Your task to perform on an android device: allow cookies in the chrome app Image 0: 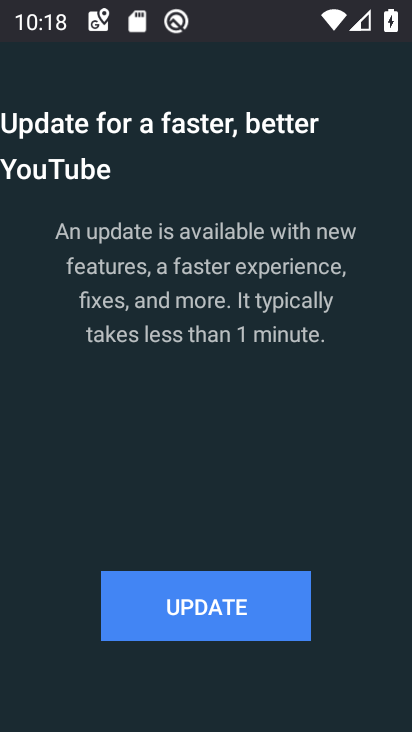
Step 0: press home button
Your task to perform on an android device: allow cookies in the chrome app Image 1: 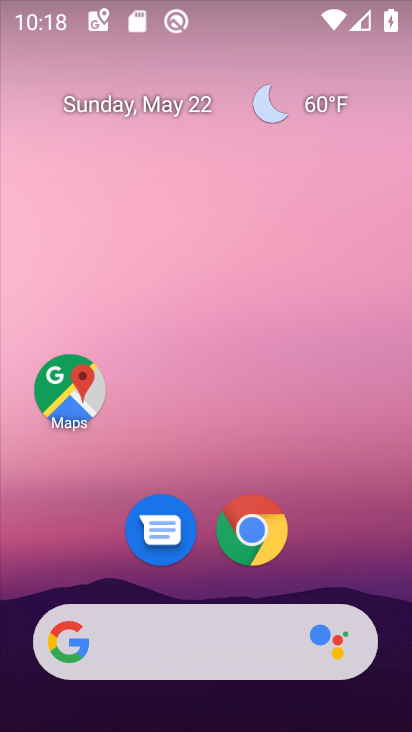
Step 1: click (261, 528)
Your task to perform on an android device: allow cookies in the chrome app Image 2: 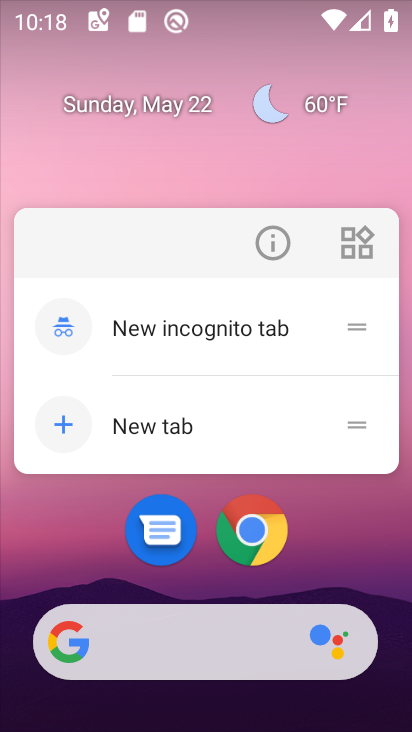
Step 2: click (246, 516)
Your task to perform on an android device: allow cookies in the chrome app Image 3: 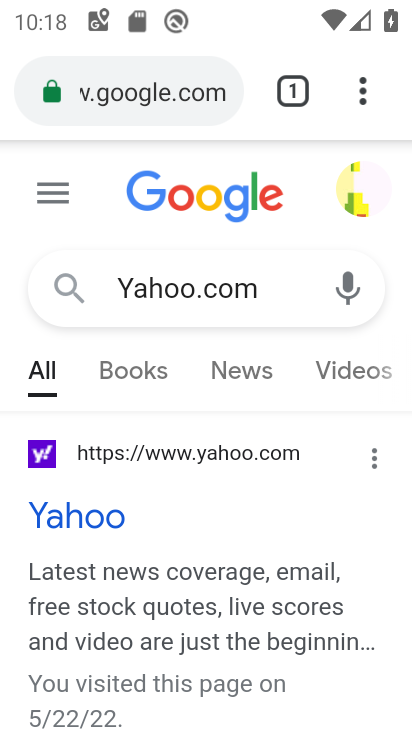
Step 3: click (358, 80)
Your task to perform on an android device: allow cookies in the chrome app Image 4: 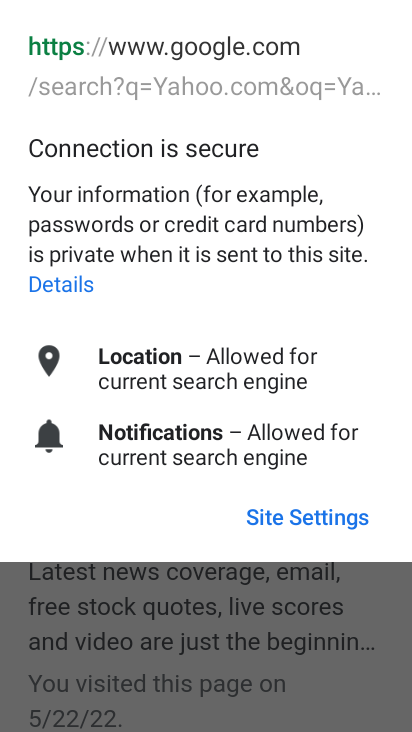
Step 4: press back button
Your task to perform on an android device: allow cookies in the chrome app Image 5: 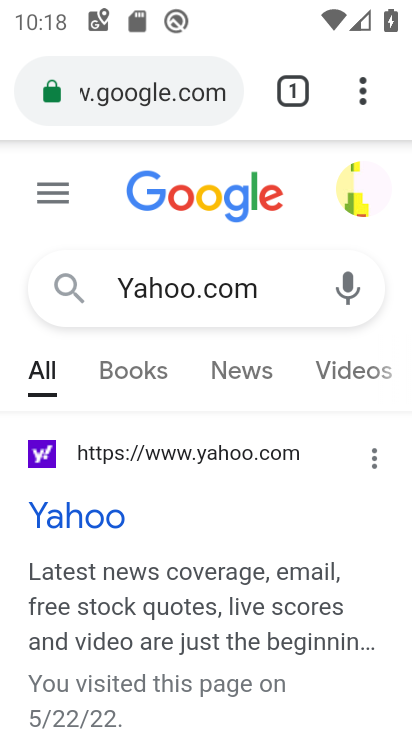
Step 5: click (359, 78)
Your task to perform on an android device: allow cookies in the chrome app Image 6: 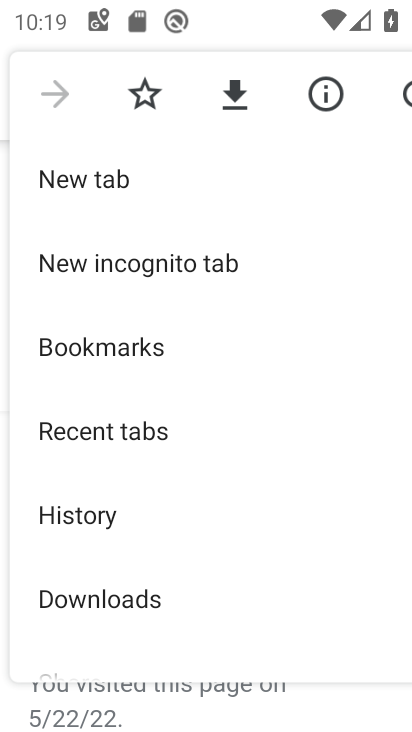
Step 6: drag from (218, 619) to (249, 249)
Your task to perform on an android device: allow cookies in the chrome app Image 7: 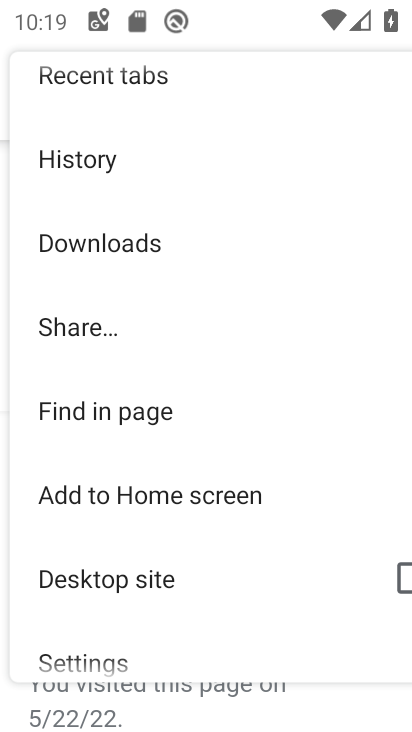
Step 7: click (56, 662)
Your task to perform on an android device: allow cookies in the chrome app Image 8: 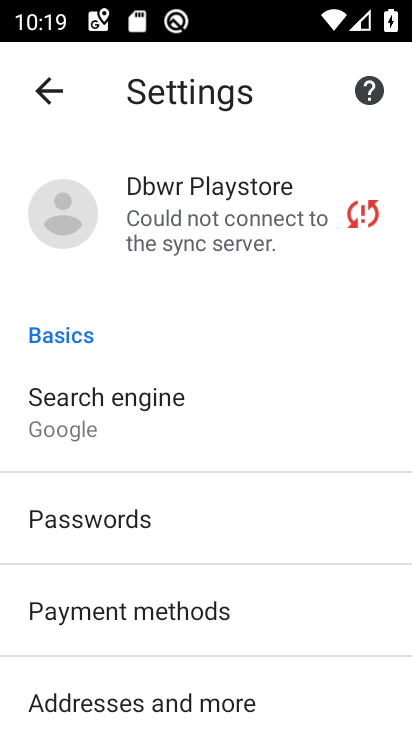
Step 8: drag from (296, 674) to (289, 298)
Your task to perform on an android device: allow cookies in the chrome app Image 9: 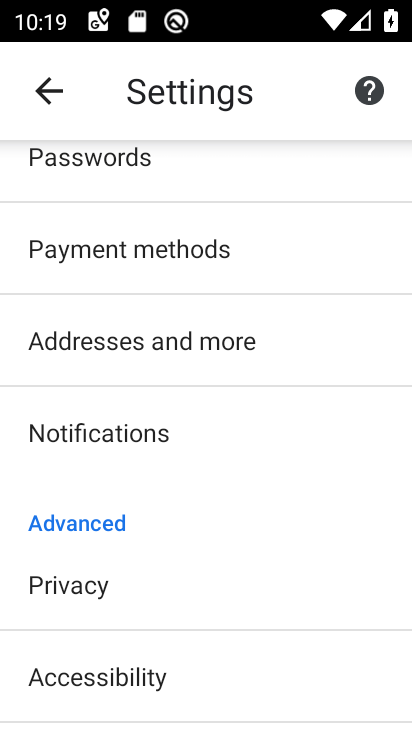
Step 9: drag from (271, 713) to (285, 357)
Your task to perform on an android device: allow cookies in the chrome app Image 10: 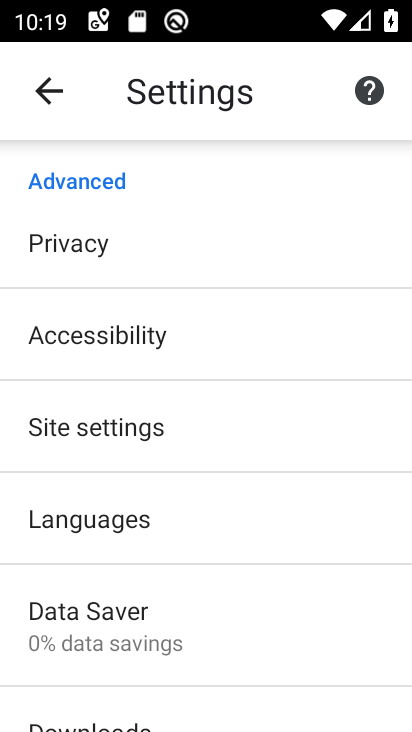
Step 10: click (248, 382)
Your task to perform on an android device: allow cookies in the chrome app Image 11: 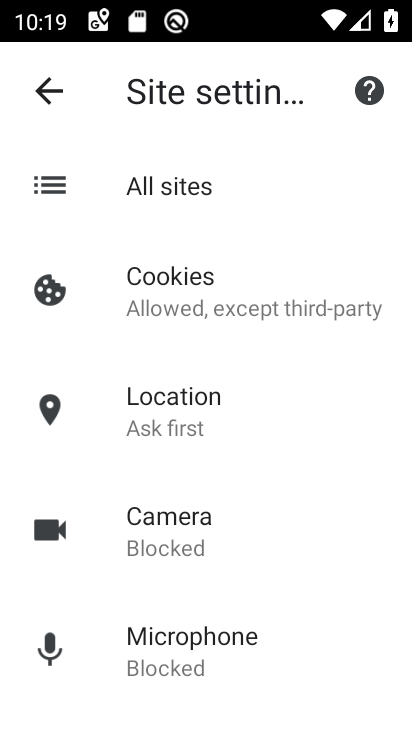
Step 11: click (182, 279)
Your task to perform on an android device: allow cookies in the chrome app Image 12: 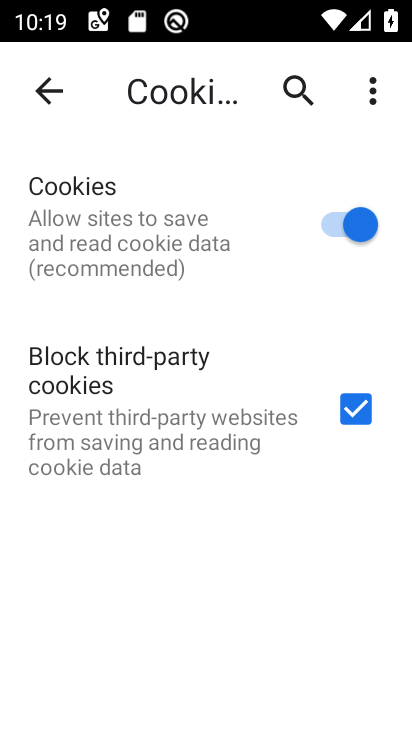
Step 12: task complete